Your task to perform on an android device: Go to Google Image 0: 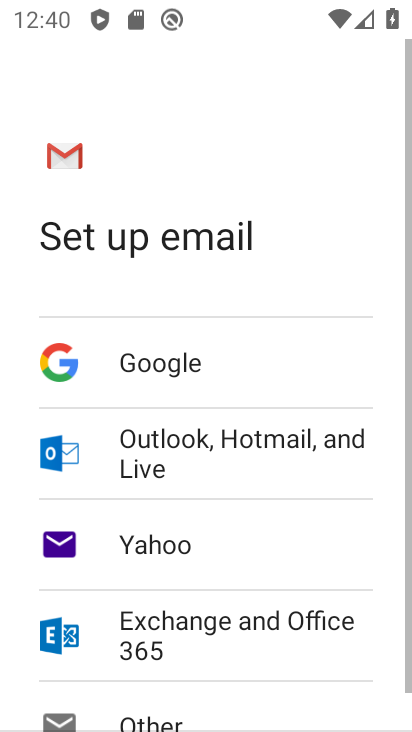
Step 0: press home button
Your task to perform on an android device: Go to Google Image 1: 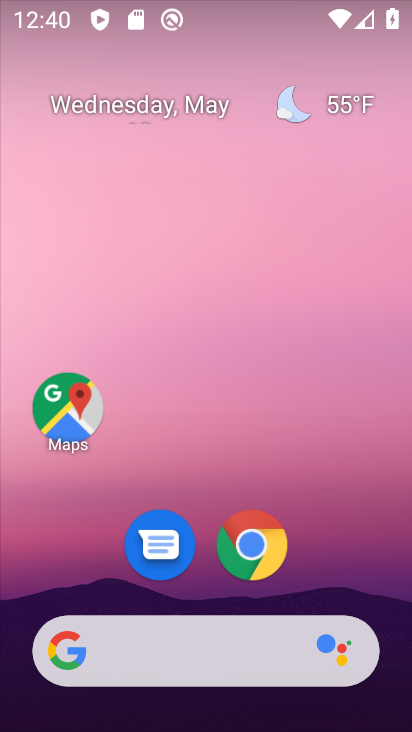
Step 1: drag from (316, 583) to (370, 10)
Your task to perform on an android device: Go to Google Image 2: 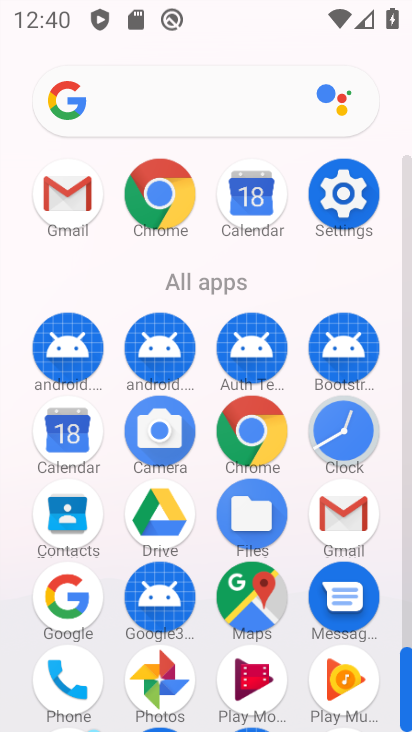
Step 2: click (87, 581)
Your task to perform on an android device: Go to Google Image 3: 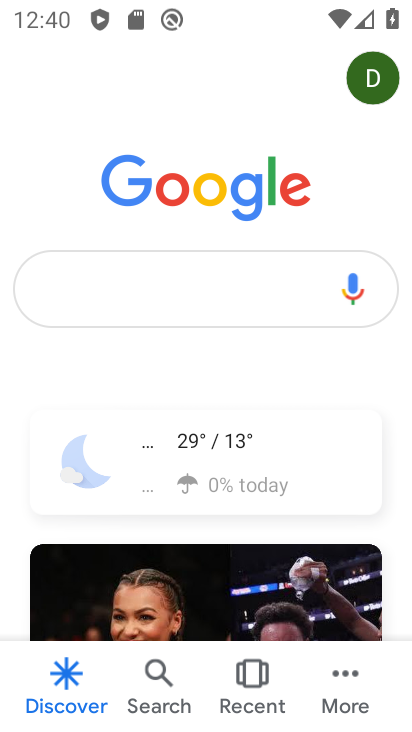
Step 3: task complete